Your task to perform on an android device: change keyboard looks Image 0: 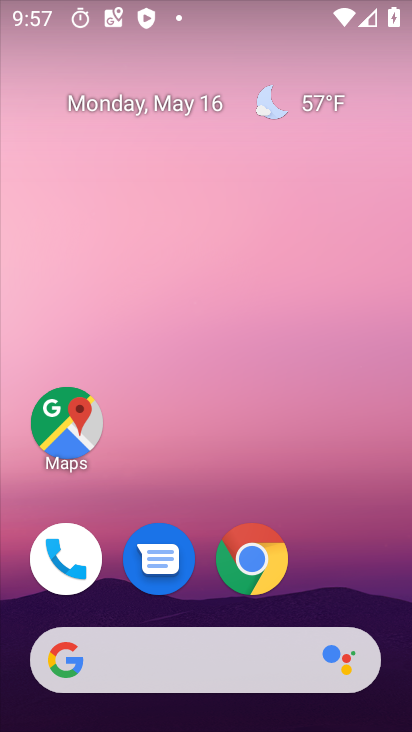
Step 0: drag from (344, 580) to (247, 80)
Your task to perform on an android device: change keyboard looks Image 1: 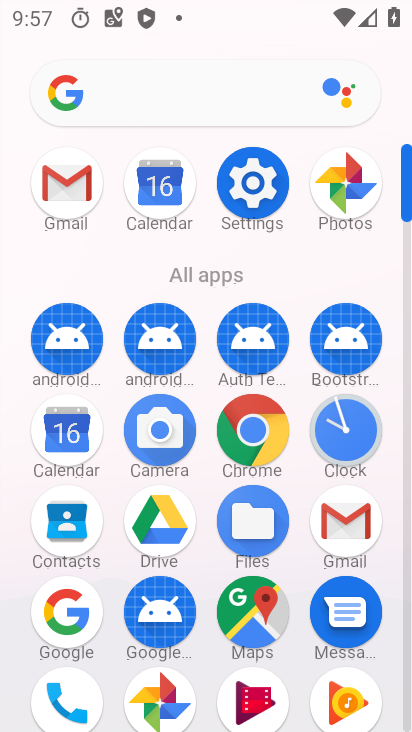
Step 1: click (246, 182)
Your task to perform on an android device: change keyboard looks Image 2: 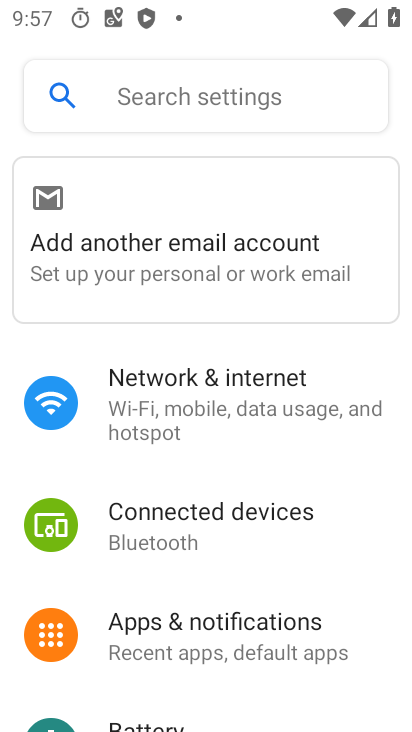
Step 2: drag from (283, 662) to (267, 196)
Your task to perform on an android device: change keyboard looks Image 3: 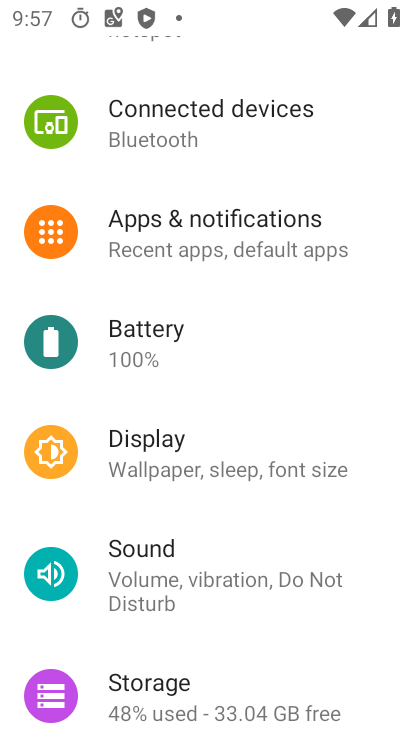
Step 3: drag from (273, 589) to (298, 180)
Your task to perform on an android device: change keyboard looks Image 4: 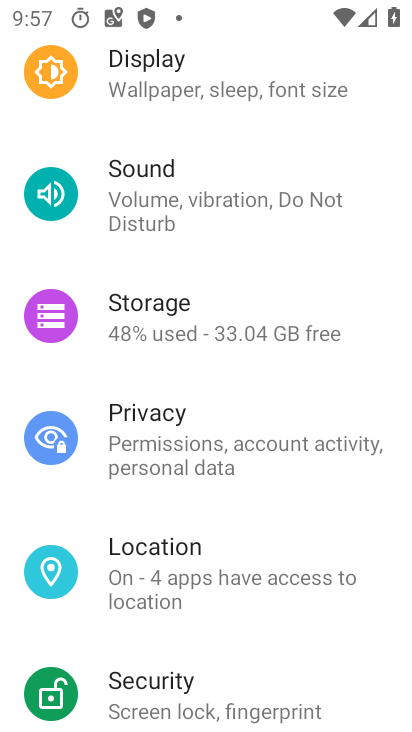
Step 4: drag from (263, 629) to (194, 149)
Your task to perform on an android device: change keyboard looks Image 5: 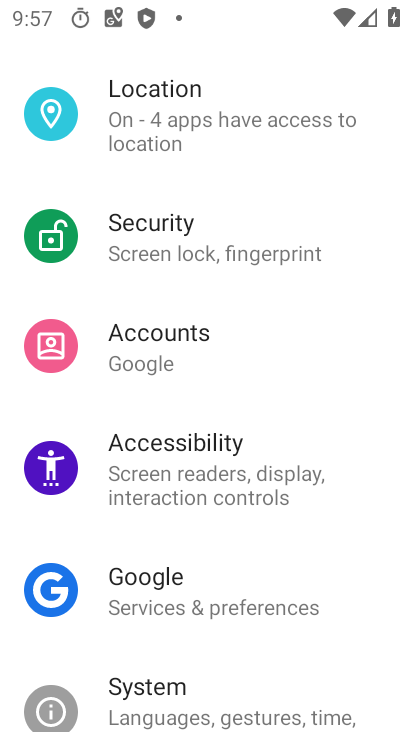
Step 5: drag from (282, 644) to (267, 324)
Your task to perform on an android device: change keyboard looks Image 6: 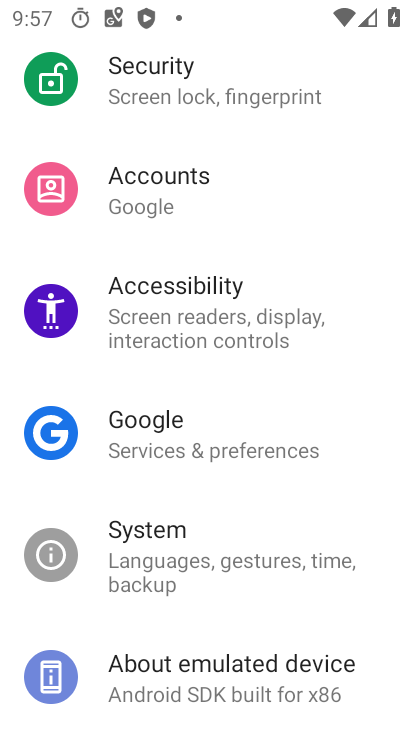
Step 6: click (179, 542)
Your task to perform on an android device: change keyboard looks Image 7: 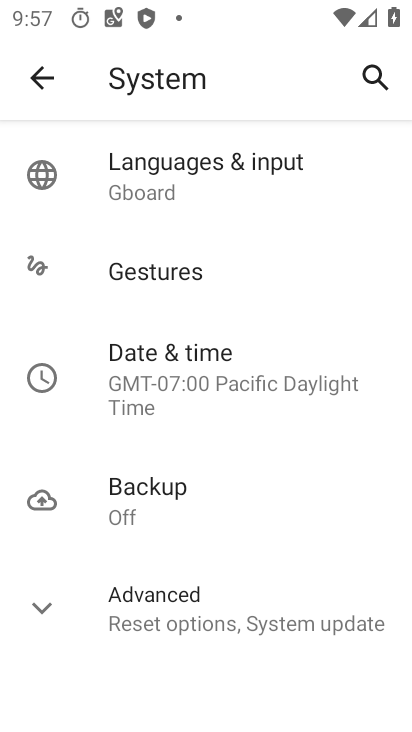
Step 7: click (144, 188)
Your task to perform on an android device: change keyboard looks Image 8: 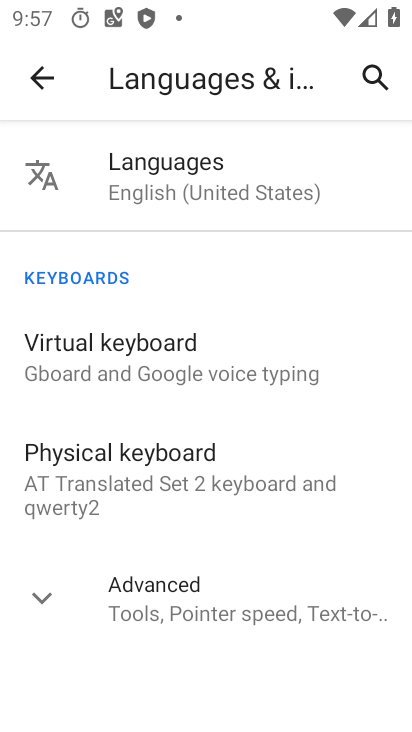
Step 8: click (165, 348)
Your task to perform on an android device: change keyboard looks Image 9: 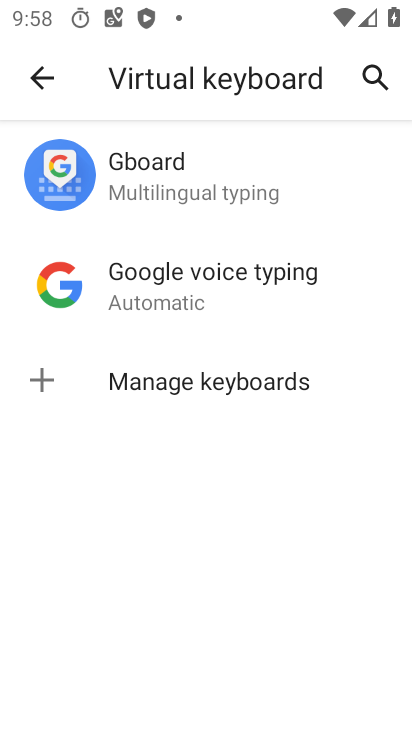
Step 9: click (158, 181)
Your task to perform on an android device: change keyboard looks Image 10: 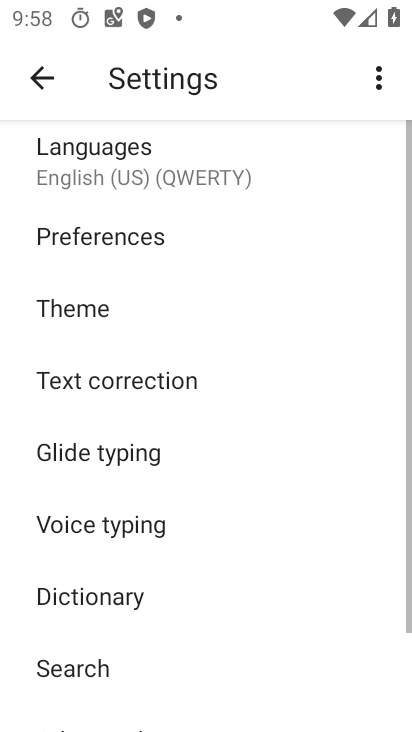
Step 10: click (91, 293)
Your task to perform on an android device: change keyboard looks Image 11: 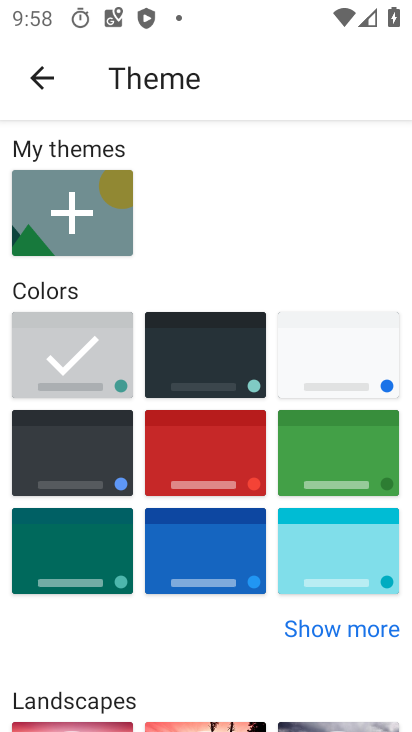
Step 11: click (334, 353)
Your task to perform on an android device: change keyboard looks Image 12: 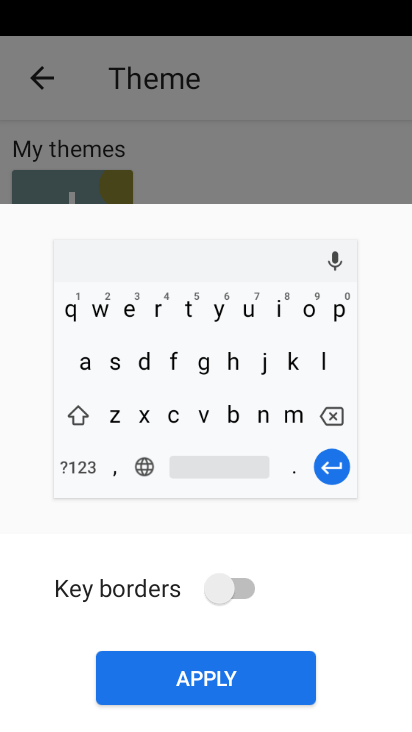
Step 12: click (241, 661)
Your task to perform on an android device: change keyboard looks Image 13: 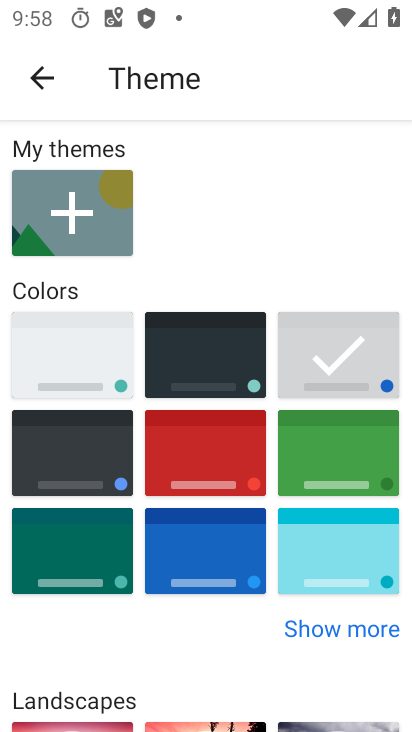
Step 13: task complete